Your task to perform on an android device: When is my next meeting? Image 0: 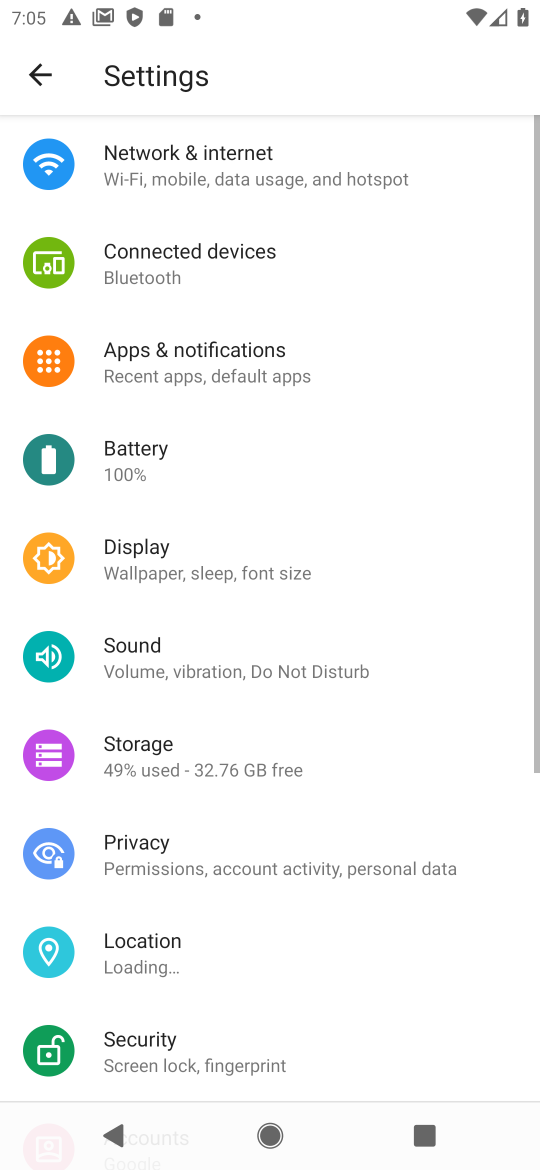
Step 0: press home button
Your task to perform on an android device: When is my next meeting? Image 1: 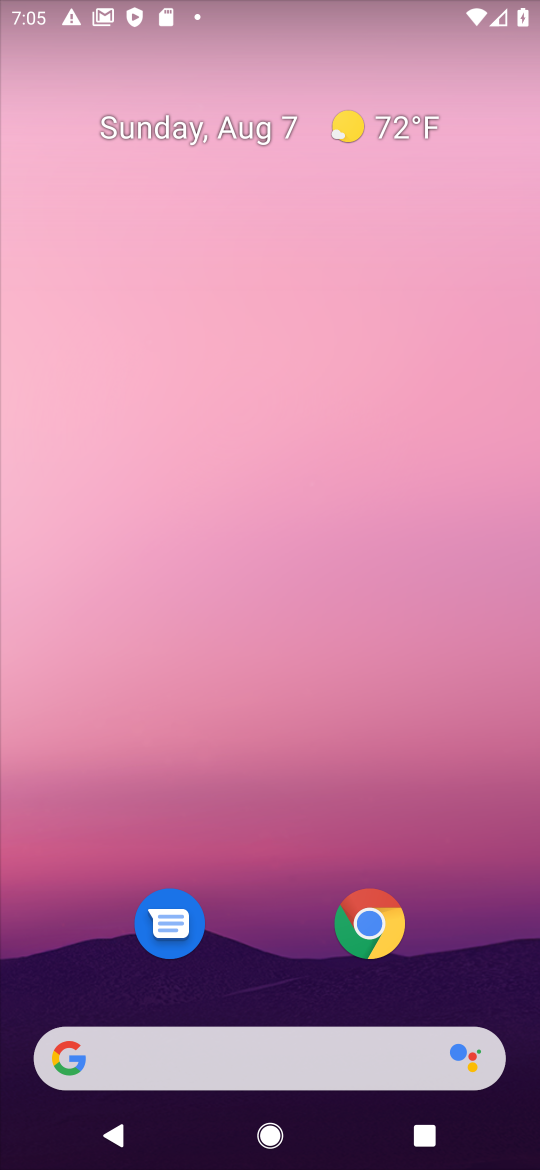
Step 1: drag from (516, 978) to (294, 55)
Your task to perform on an android device: When is my next meeting? Image 2: 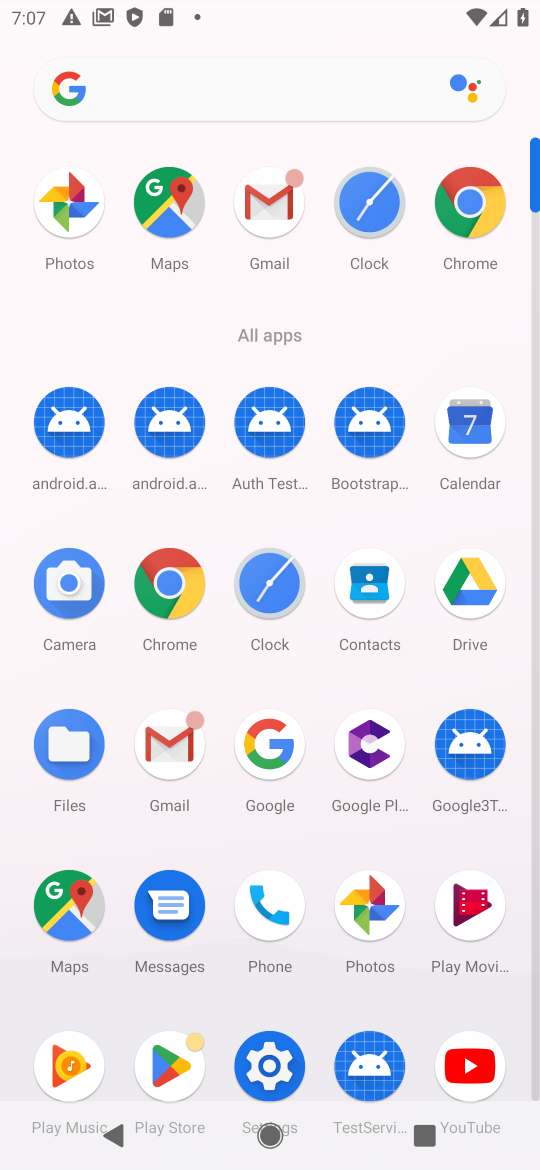
Step 2: click (489, 440)
Your task to perform on an android device: When is my next meeting? Image 3: 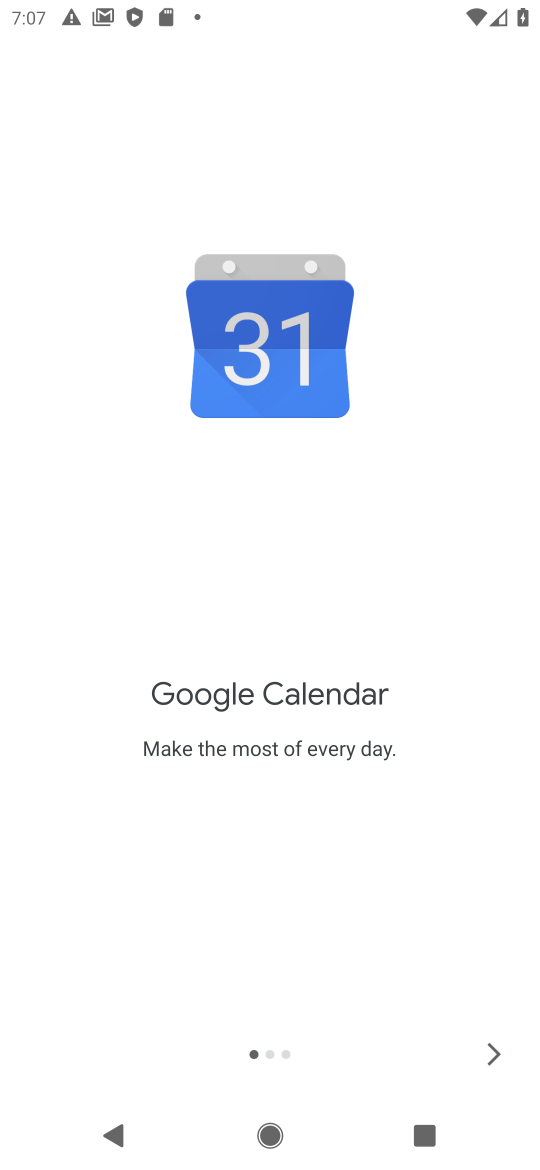
Step 3: click (493, 1055)
Your task to perform on an android device: When is my next meeting? Image 4: 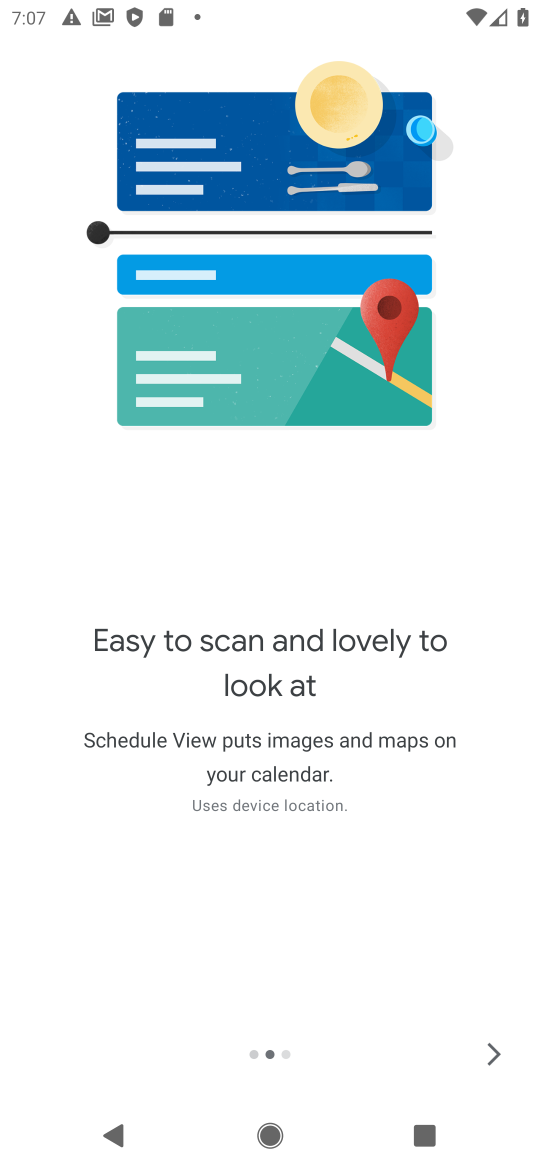
Step 4: click (493, 1054)
Your task to perform on an android device: When is my next meeting? Image 5: 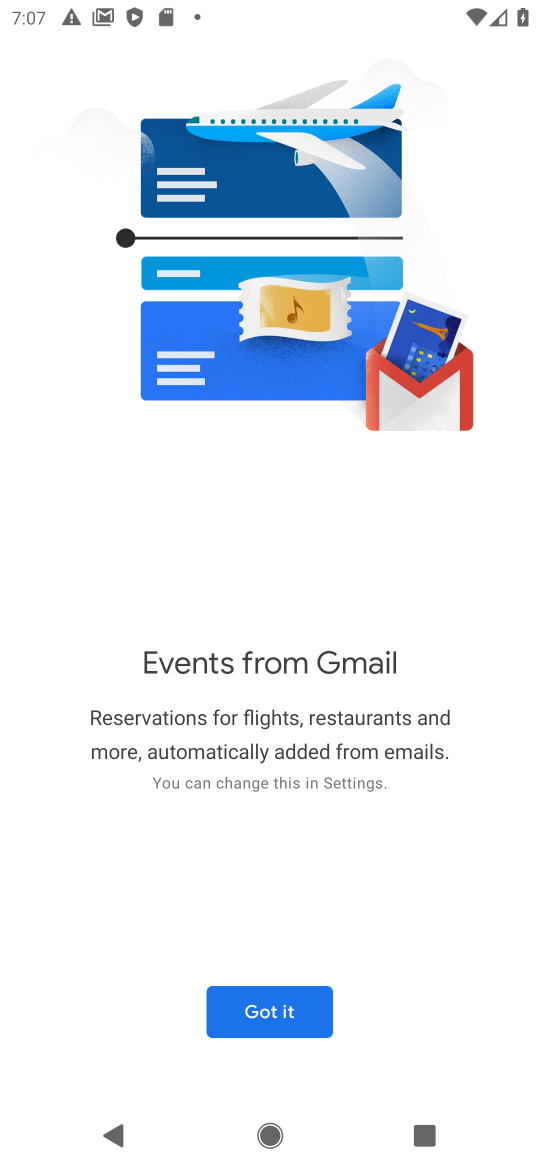
Step 5: click (274, 1018)
Your task to perform on an android device: When is my next meeting? Image 6: 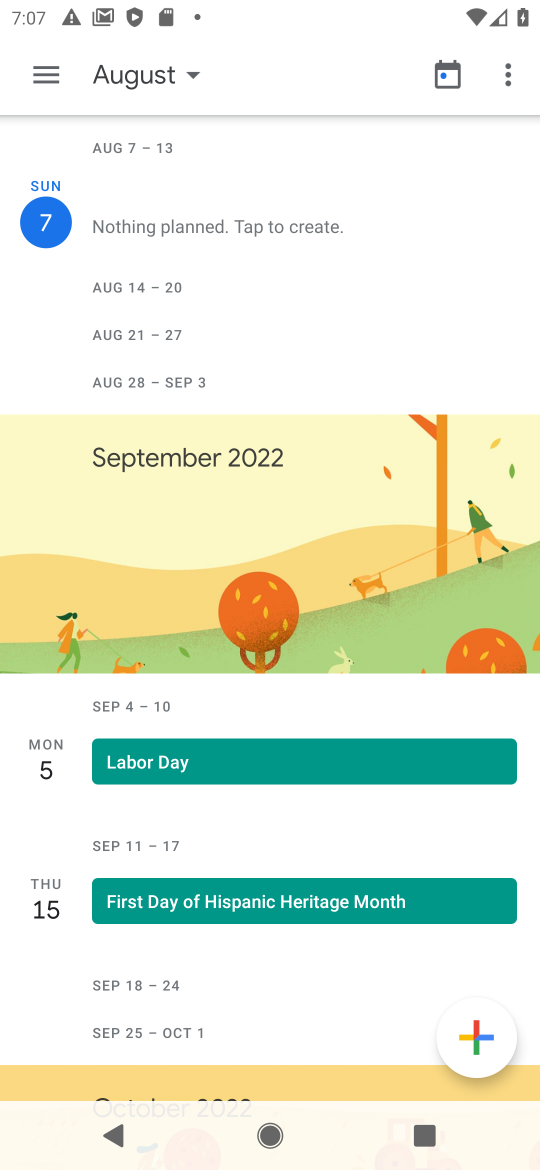
Step 6: task complete